Your task to perform on an android device: Empty the shopping cart on target. Image 0: 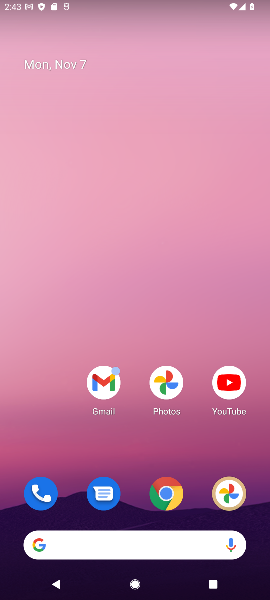
Step 0: drag from (135, 473) to (144, 113)
Your task to perform on an android device: Empty the shopping cart on target. Image 1: 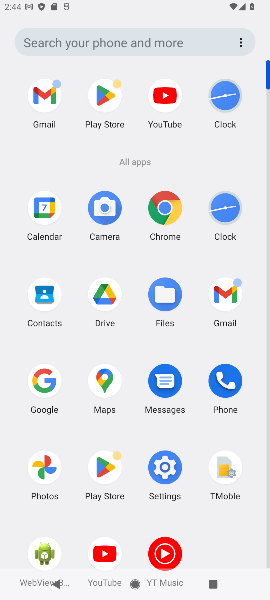
Step 1: click (167, 206)
Your task to perform on an android device: Empty the shopping cart on target. Image 2: 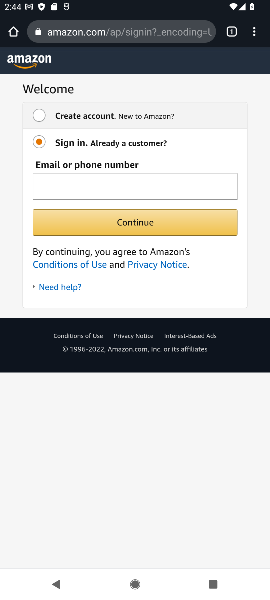
Step 2: click (98, 30)
Your task to perform on an android device: Empty the shopping cart on target. Image 3: 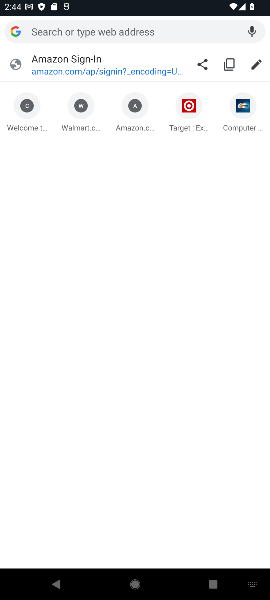
Step 3: type "target"
Your task to perform on an android device: Empty the shopping cart on target. Image 4: 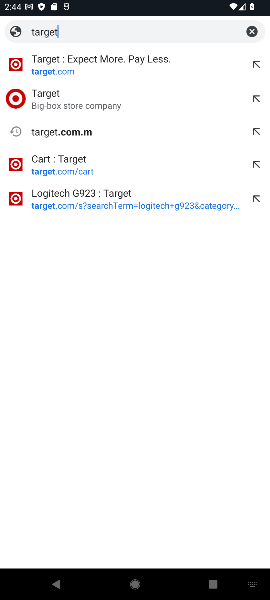
Step 4: click (83, 64)
Your task to perform on an android device: Empty the shopping cart on target. Image 5: 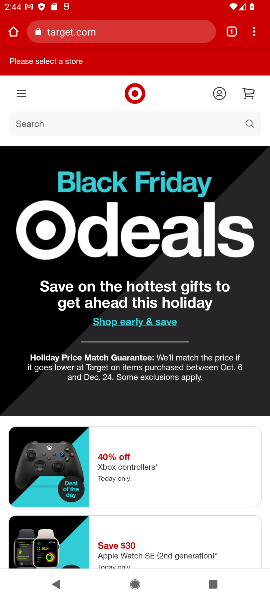
Step 5: click (40, 124)
Your task to perform on an android device: Empty the shopping cart on target. Image 6: 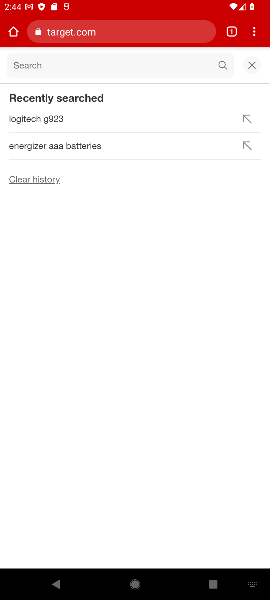
Step 6: click (253, 63)
Your task to perform on an android device: Empty the shopping cart on target. Image 7: 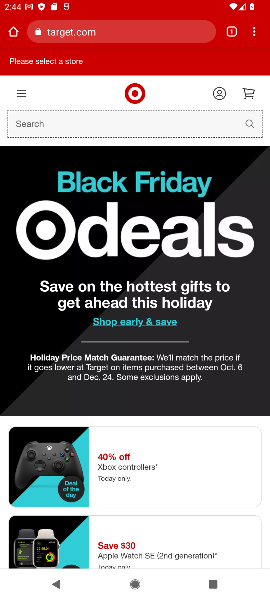
Step 7: click (247, 89)
Your task to perform on an android device: Empty the shopping cart on target. Image 8: 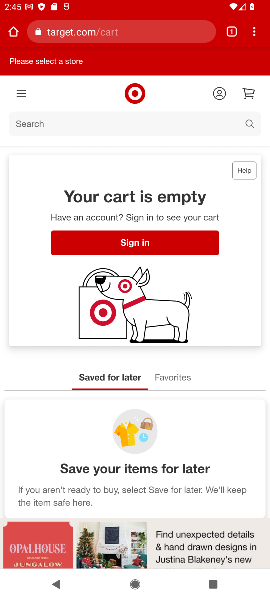
Step 8: task complete